Your task to perform on an android device: add a contact Image 0: 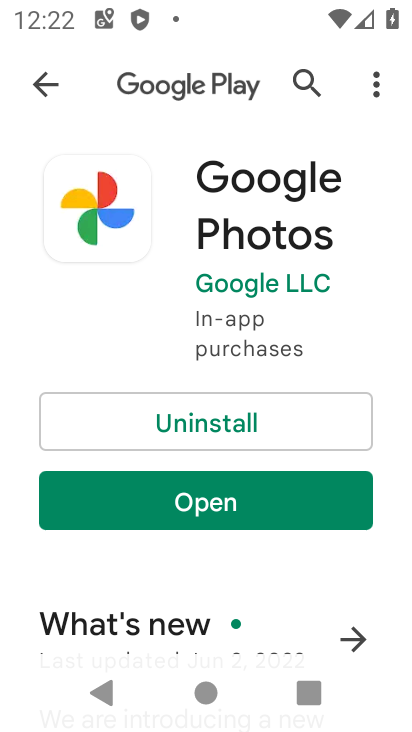
Step 0: press back button
Your task to perform on an android device: add a contact Image 1: 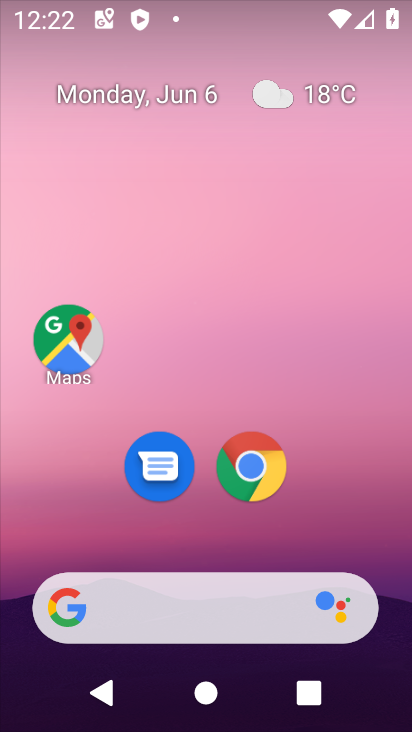
Step 1: drag from (396, 588) to (236, 24)
Your task to perform on an android device: add a contact Image 2: 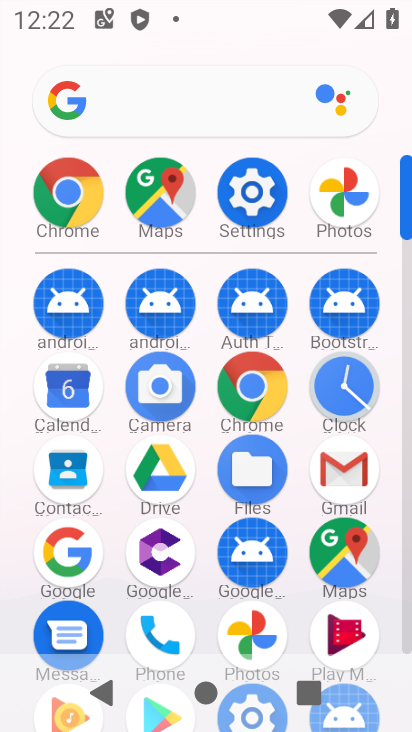
Step 2: drag from (8, 599) to (30, 271)
Your task to perform on an android device: add a contact Image 3: 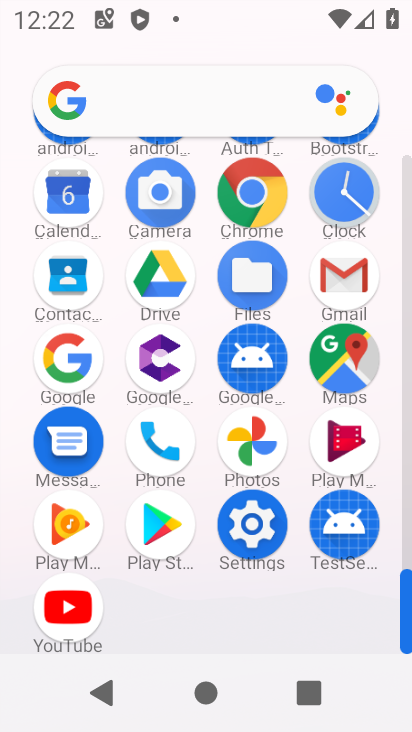
Step 3: drag from (29, 208) to (8, 524)
Your task to perform on an android device: add a contact Image 4: 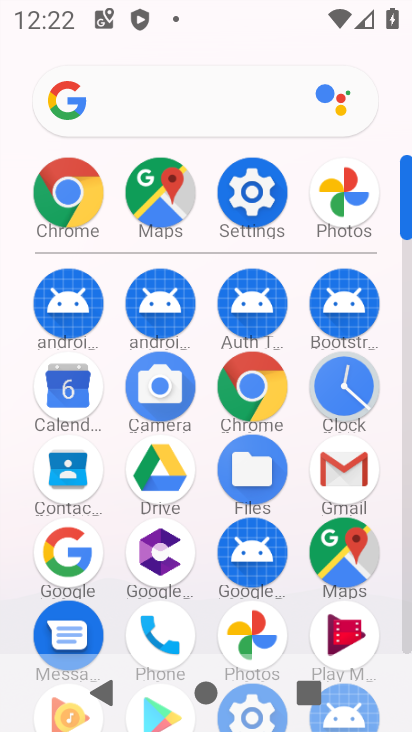
Step 4: click (61, 462)
Your task to perform on an android device: add a contact Image 5: 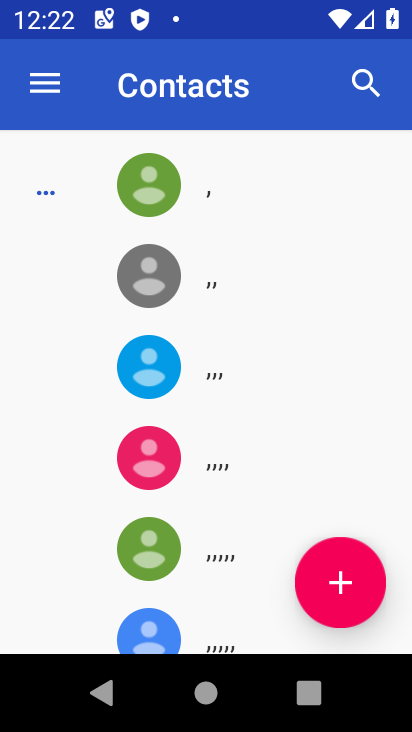
Step 5: click (345, 583)
Your task to perform on an android device: add a contact Image 6: 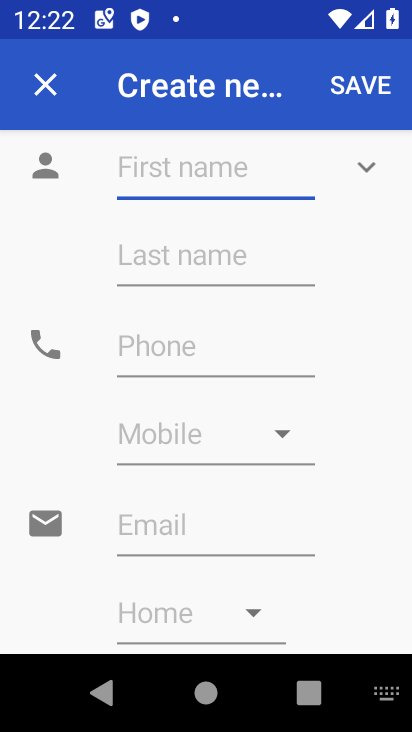
Step 6: click (157, 180)
Your task to perform on an android device: add a contact Image 7: 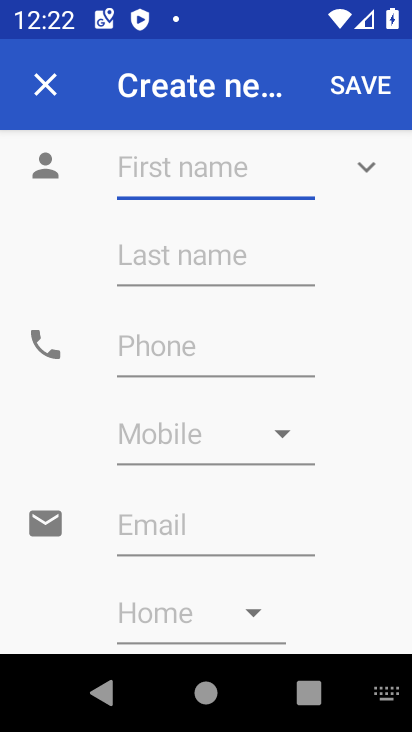
Step 7: type "DFGH"
Your task to perform on an android device: add a contact Image 8: 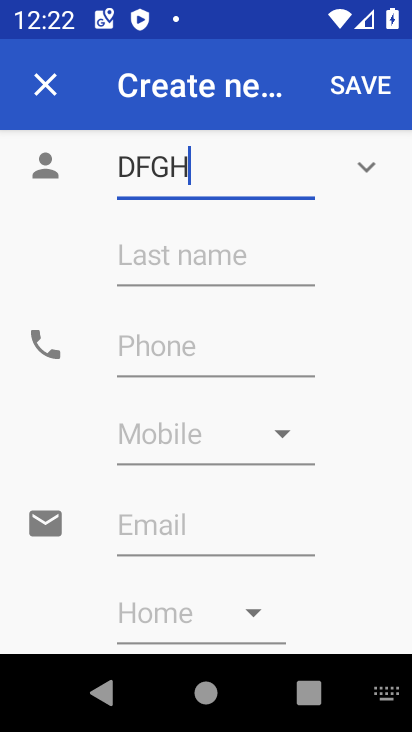
Step 8: type ""
Your task to perform on an android device: add a contact Image 9: 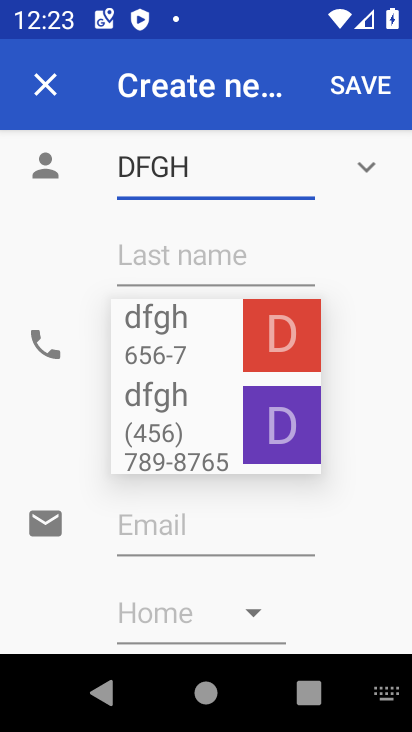
Step 9: click (174, 342)
Your task to perform on an android device: add a contact Image 10: 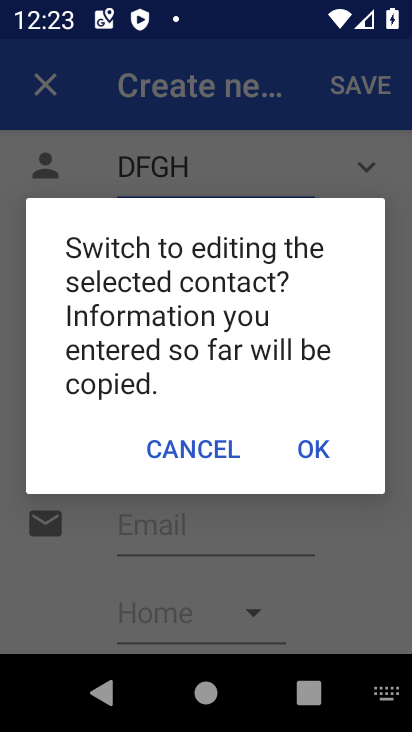
Step 10: click (320, 451)
Your task to perform on an android device: add a contact Image 11: 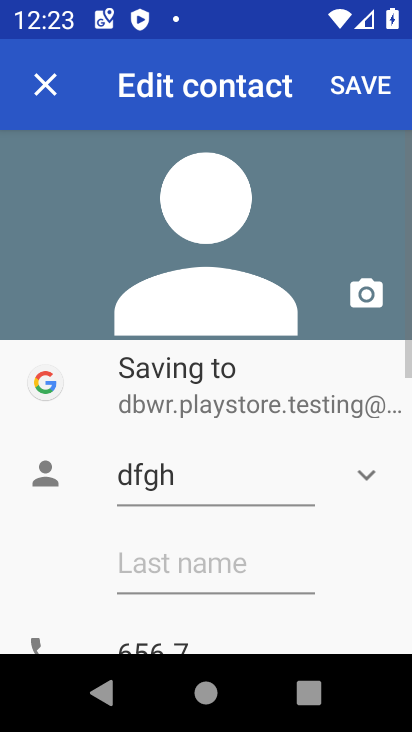
Step 11: click (345, 67)
Your task to perform on an android device: add a contact Image 12: 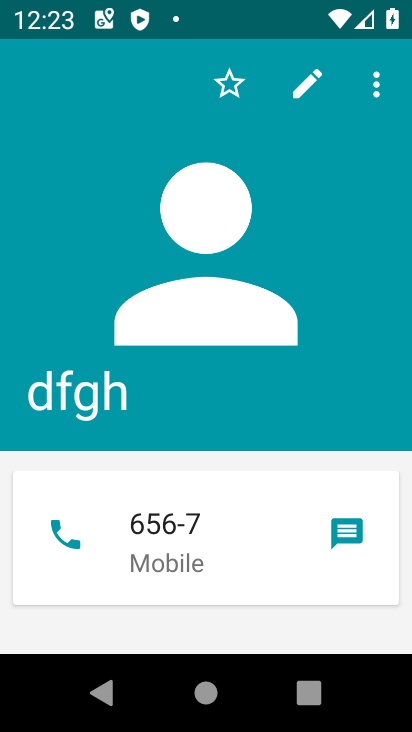
Step 12: task complete